Your task to perform on an android device: uninstall "Clock" Image 0: 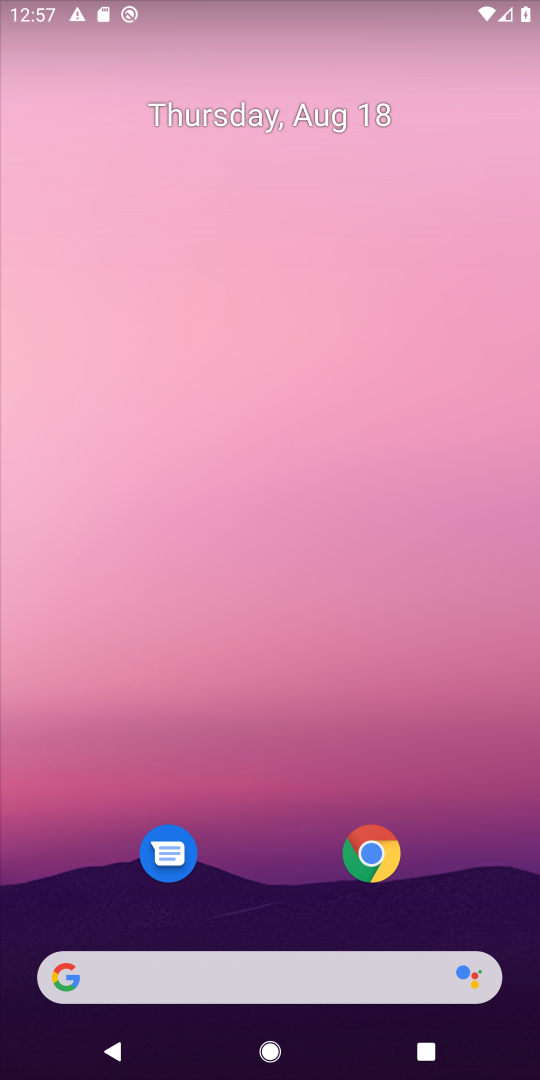
Step 0: drag from (226, 923) to (255, 163)
Your task to perform on an android device: uninstall "Clock" Image 1: 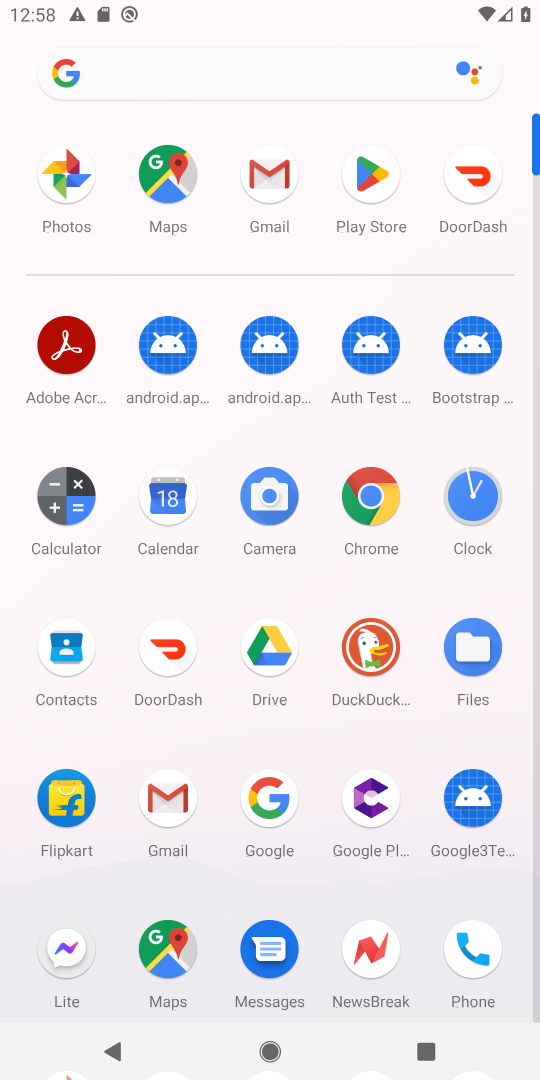
Step 1: drag from (284, 735) to (264, 331)
Your task to perform on an android device: uninstall "Clock" Image 2: 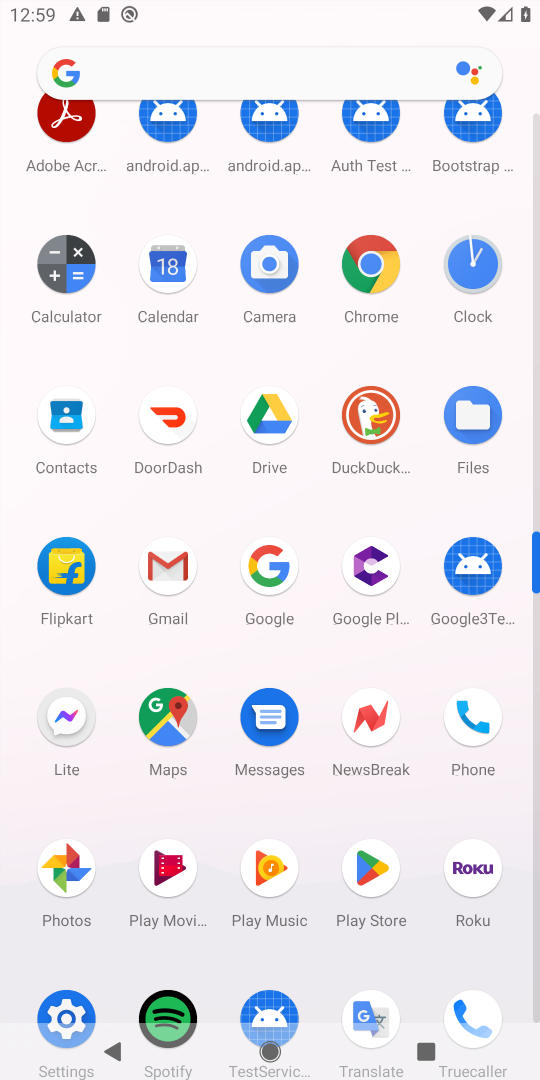
Step 2: click (463, 308)
Your task to perform on an android device: uninstall "Clock" Image 3: 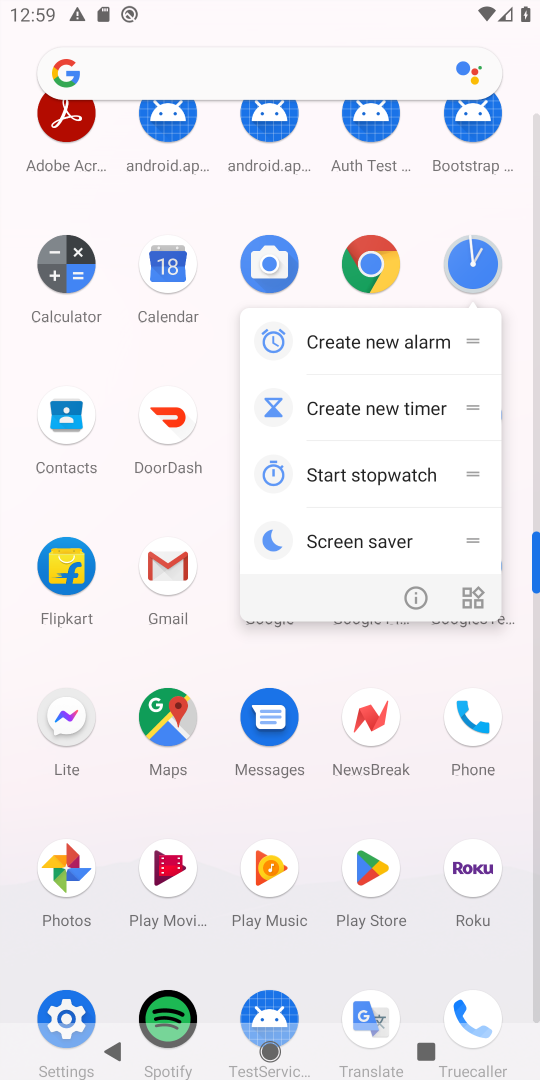
Step 3: click (419, 604)
Your task to perform on an android device: uninstall "Clock" Image 4: 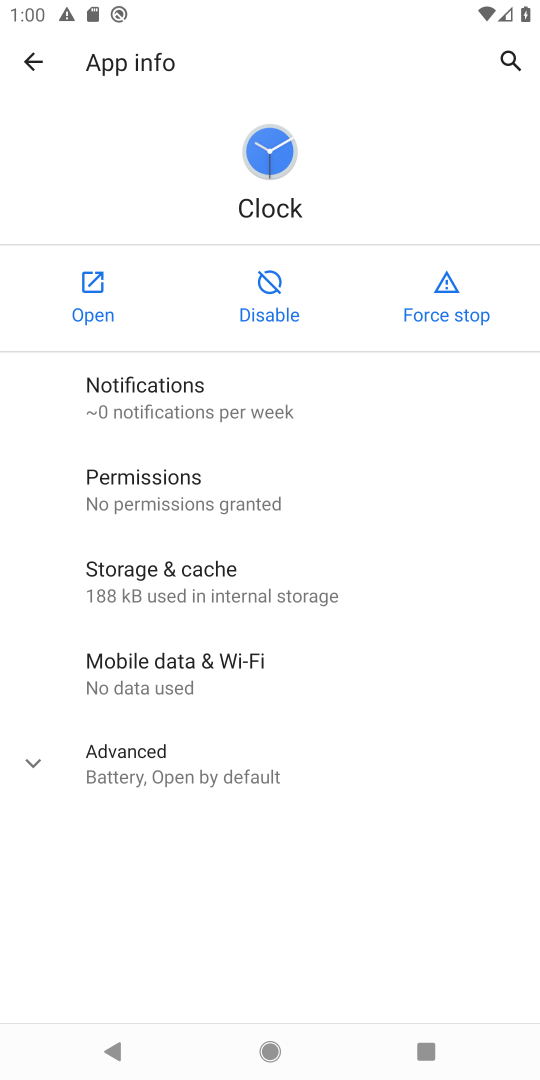
Step 4: task complete